Your task to perform on an android device: Go to internet settings Image 0: 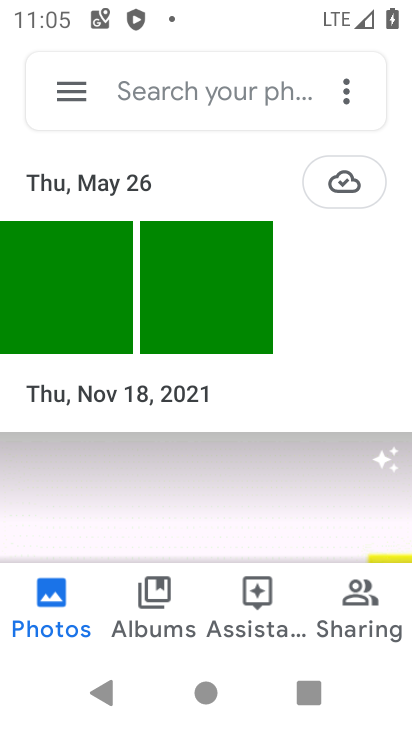
Step 0: press home button
Your task to perform on an android device: Go to internet settings Image 1: 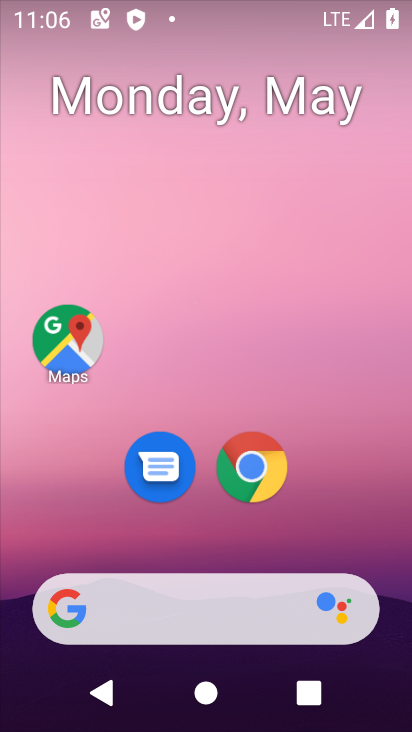
Step 1: drag from (396, 711) to (352, 214)
Your task to perform on an android device: Go to internet settings Image 2: 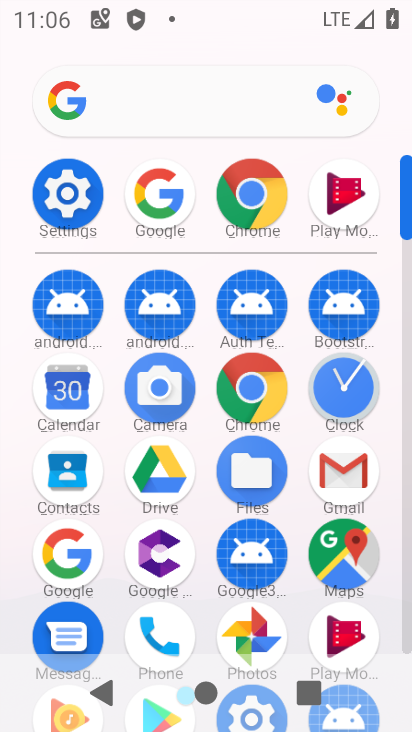
Step 2: drag from (199, 607) to (179, 252)
Your task to perform on an android device: Go to internet settings Image 3: 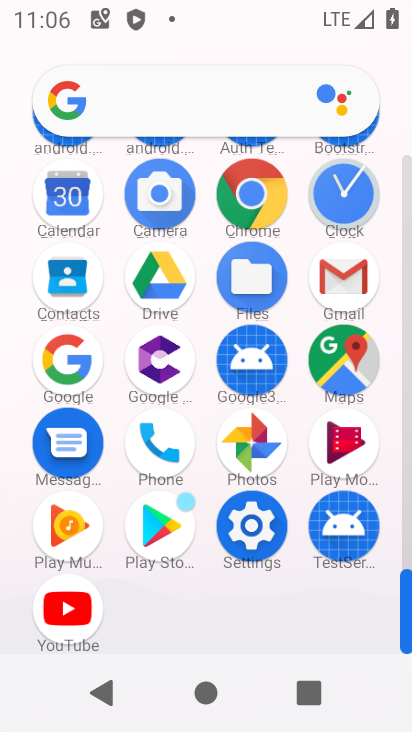
Step 3: drag from (102, 200) to (111, 366)
Your task to perform on an android device: Go to internet settings Image 4: 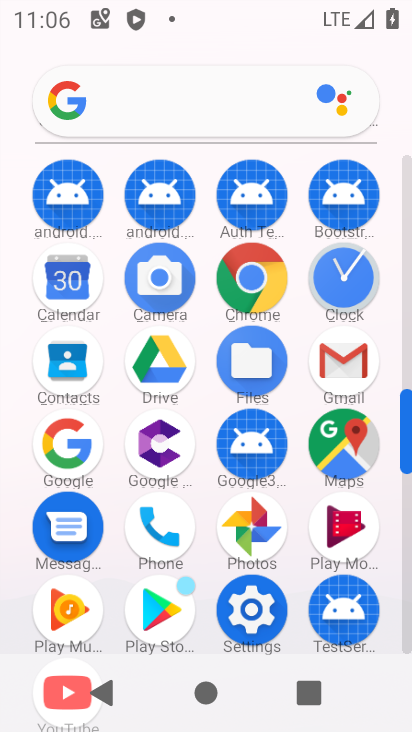
Step 4: click (260, 614)
Your task to perform on an android device: Go to internet settings Image 5: 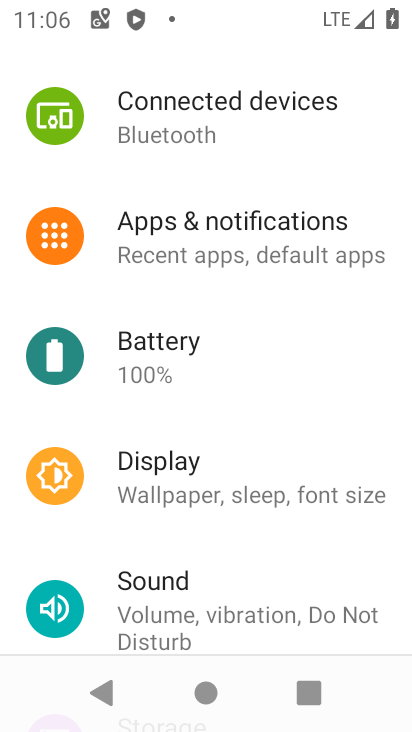
Step 5: drag from (270, 157) to (278, 493)
Your task to perform on an android device: Go to internet settings Image 6: 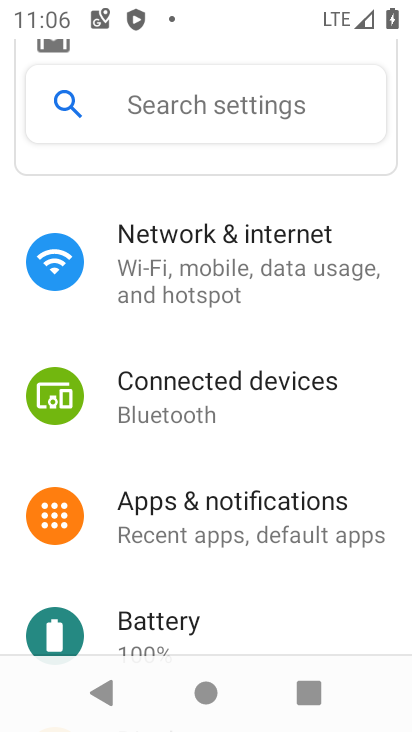
Step 6: click (177, 258)
Your task to perform on an android device: Go to internet settings Image 7: 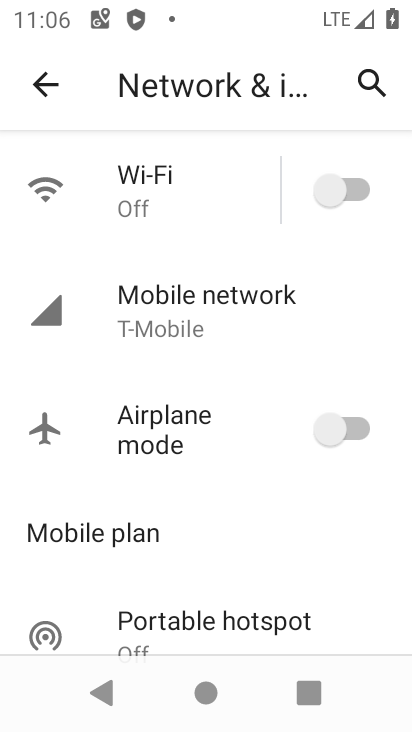
Step 7: drag from (210, 559) to (214, 243)
Your task to perform on an android device: Go to internet settings Image 8: 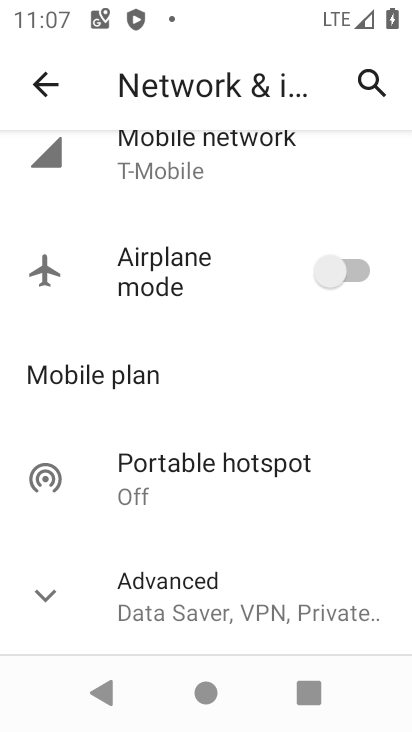
Step 8: drag from (218, 600) to (206, 319)
Your task to perform on an android device: Go to internet settings Image 9: 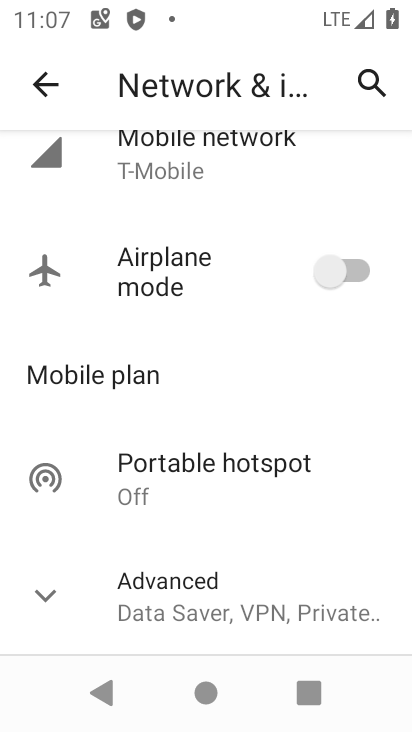
Step 9: click (52, 635)
Your task to perform on an android device: Go to internet settings Image 10: 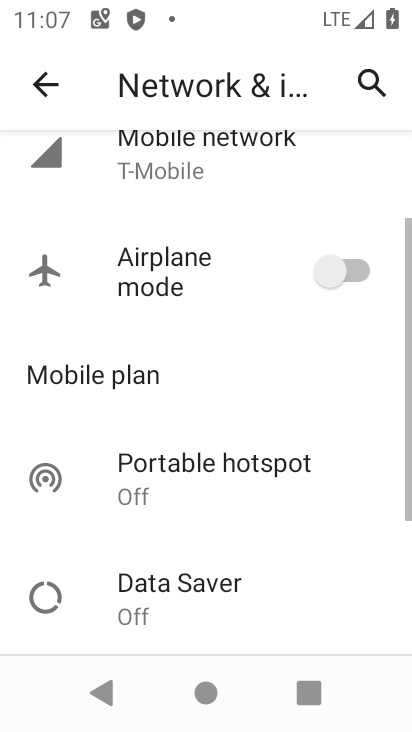
Step 10: task complete